Your task to perform on an android device: turn off wifi Image 0: 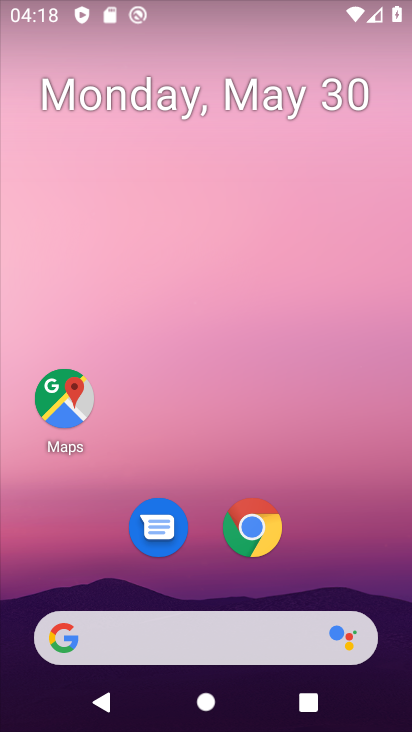
Step 0: drag from (227, 725) to (247, 15)
Your task to perform on an android device: turn off wifi Image 1: 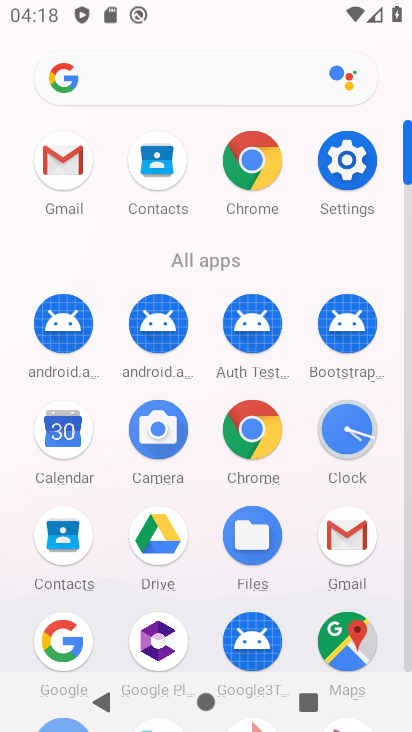
Step 1: click (342, 179)
Your task to perform on an android device: turn off wifi Image 2: 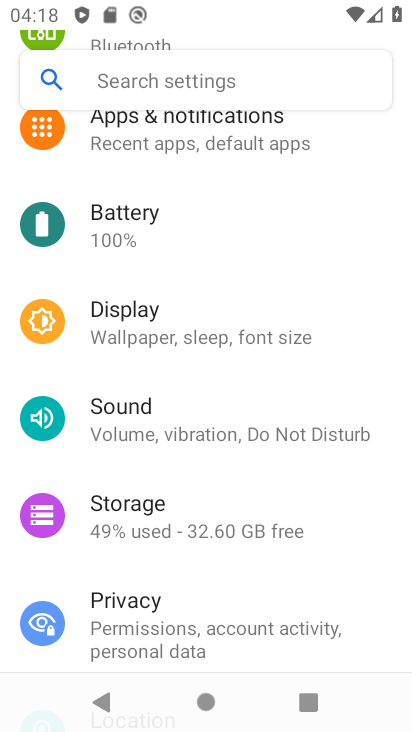
Step 2: drag from (266, 144) to (247, 496)
Your task to perform on an android device: turn off wifi Image 3: 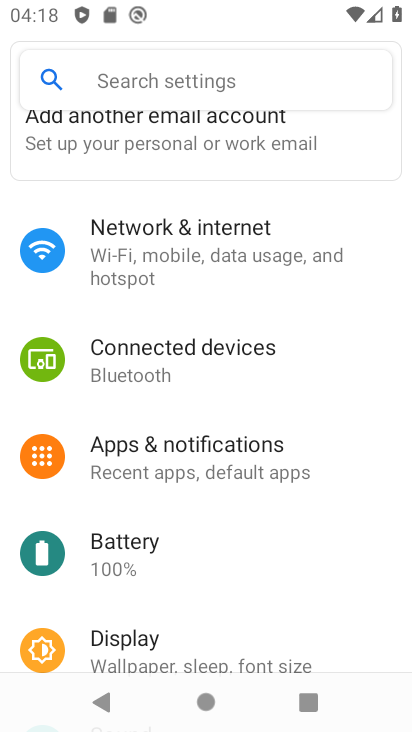
Step 3: drag from (237, 203) to (253, 472)
Your task to perform on an android device: turn off wifi Image 4: 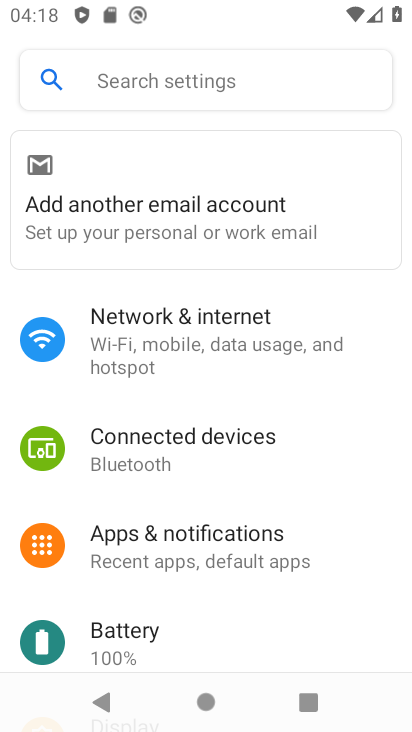
Step 4: click (122, 335)
Your task to perform on an android device: turn off wifi Image 5: 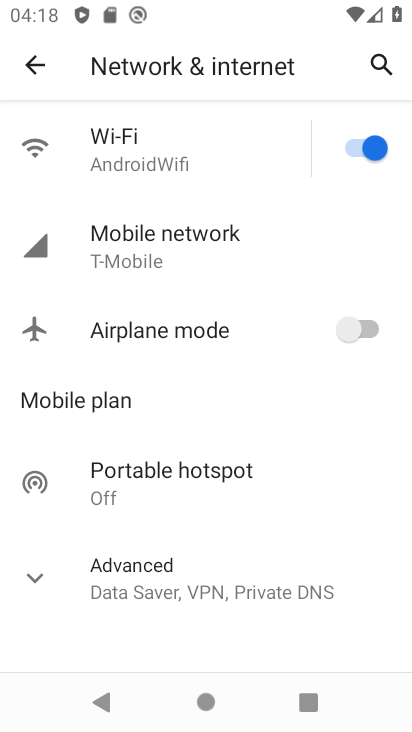
Step 5: click (349, 142)
Your task to perform on an android device: turn off wifi Image 6: 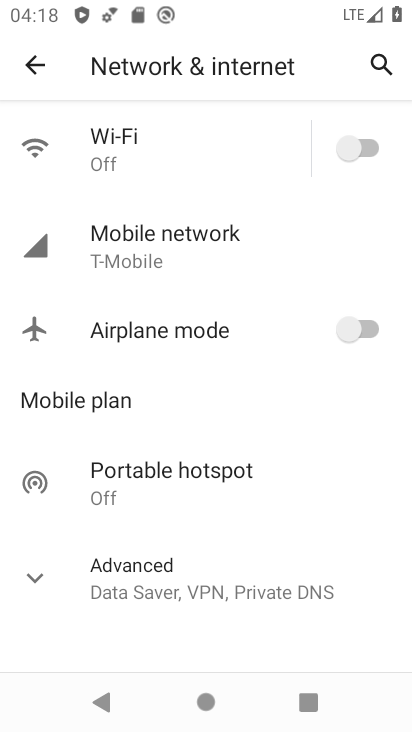
Step 6: task complete